Your task to perform on an android device: Open the phone app and click the voicemail tab. Image 0: 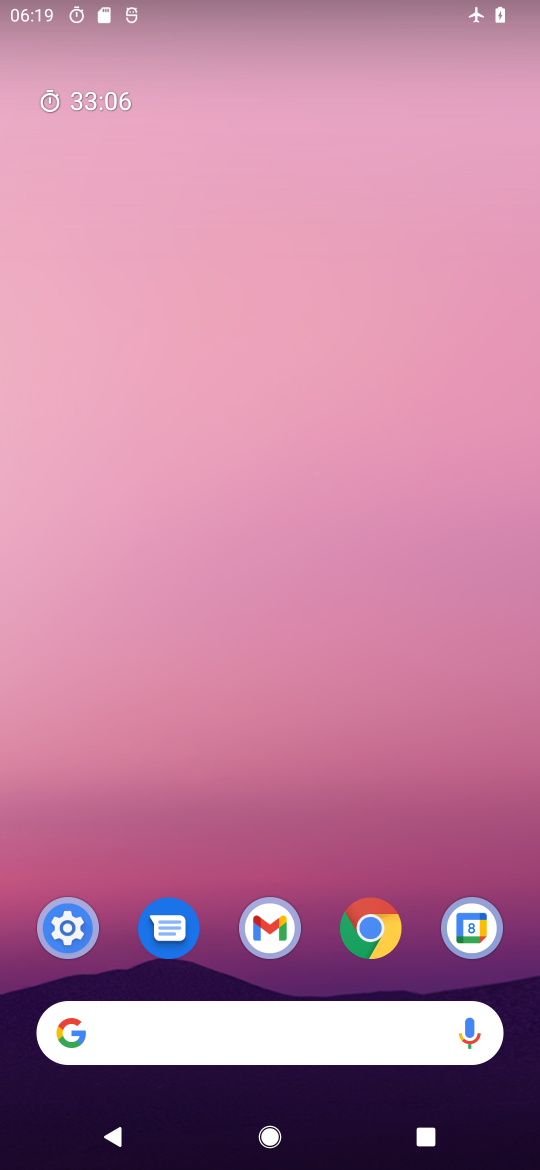
Step 0: drag from (194, 858) to (225, 167)
Your task to perform on an android device: Open the phone app and click the voicemail tab. Image 1: 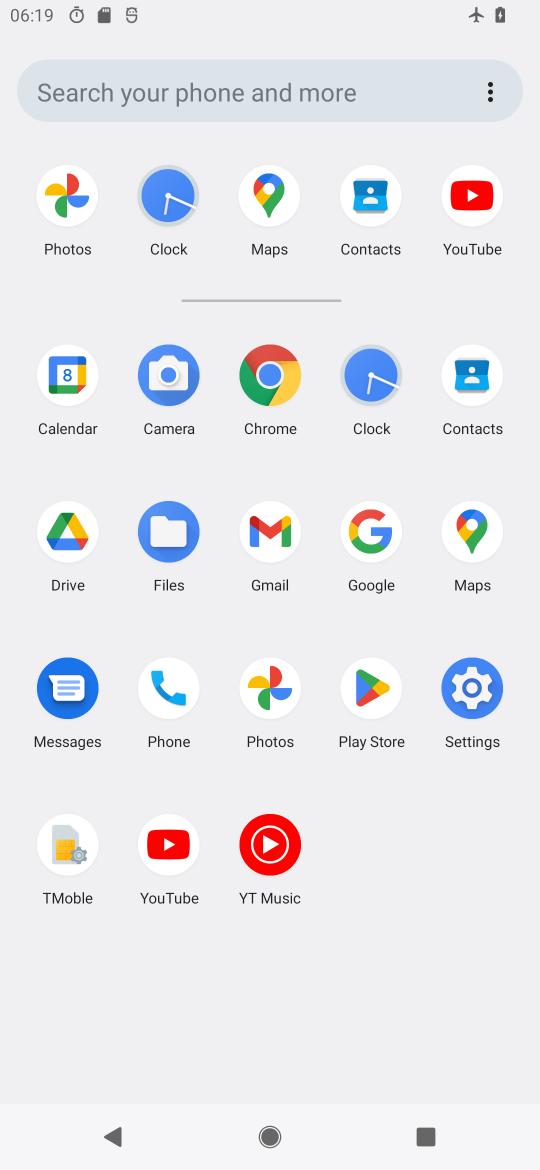
Step 1: click (165, 711)
Your task to perform on an android device: Open the phone app and click the voicemail tab. Image 2: 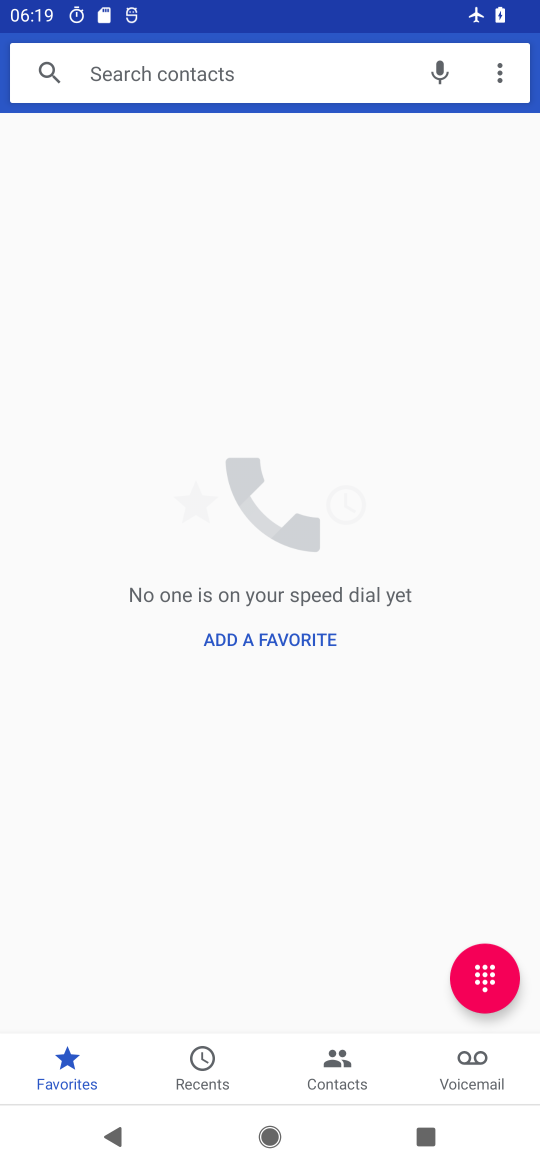
Step 2: click (461, 1069)
Your task to perform on an android device: Open the phone app and click the voicemail tab. Image 3: 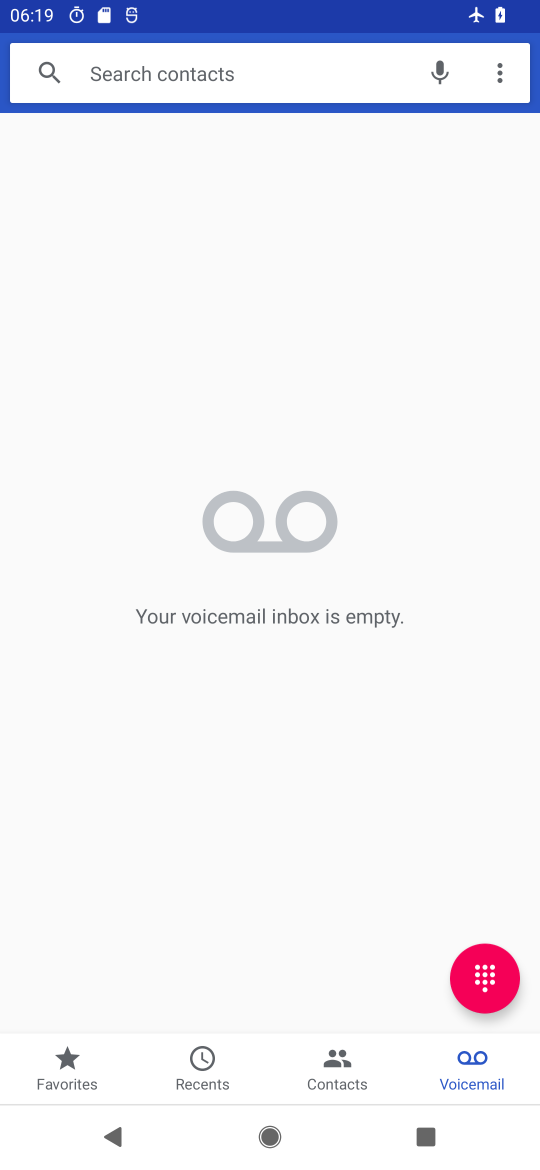
Step 3: task complete